Your task to perform on an android device: choose inbox layout in the gmail app Image 0: 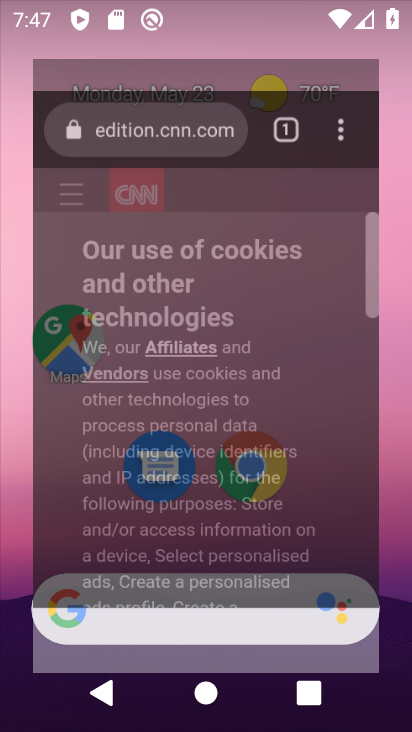
Step 0: drag from (231, 624) to (253, 141)
Your task to perform on an android device: choose inbox layout in the gmail app Image 1: 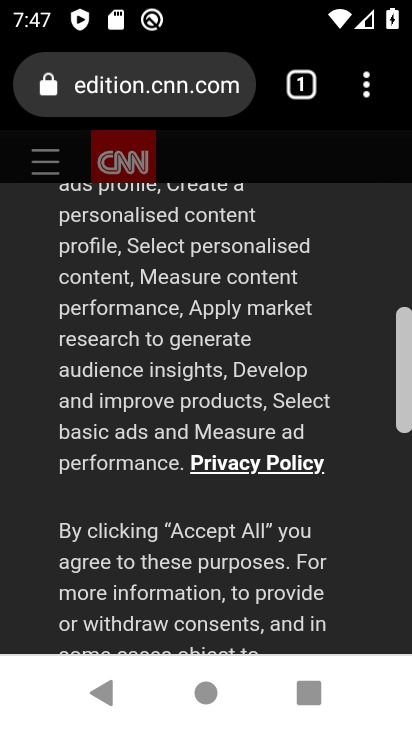
Step 1: press home button
Your task to perform on an android device: choose inbox layout in the gmail app Image 2: 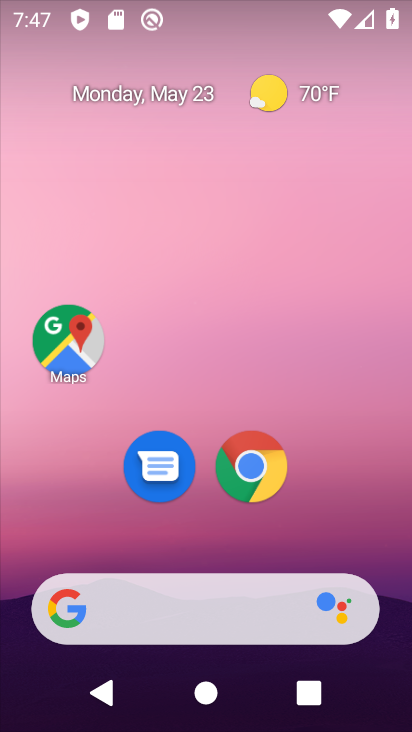
Step 2: drag from (266, 549) to (278, 178)
Your task to perform on an android device: choose inbox layout in the gmail app Image 3: 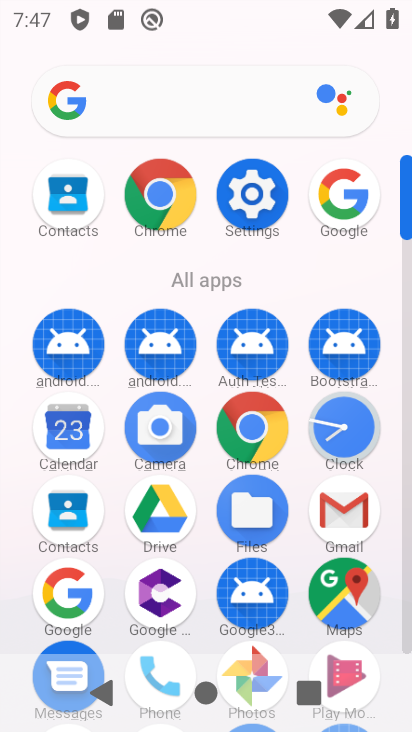
Step 3: click (336, 513)
Your task to perform on an android device: choose inbox layout in the gmail app Image 4: 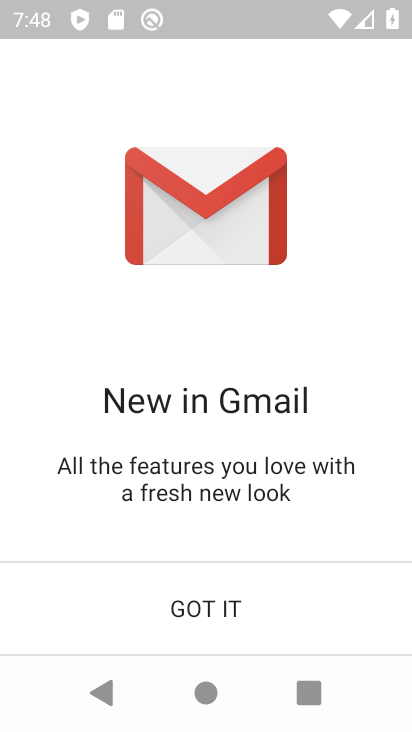
Step 4: click (273, 615)
Your task to perform on an android device: choose inbox layout in the gmail app Image 5: 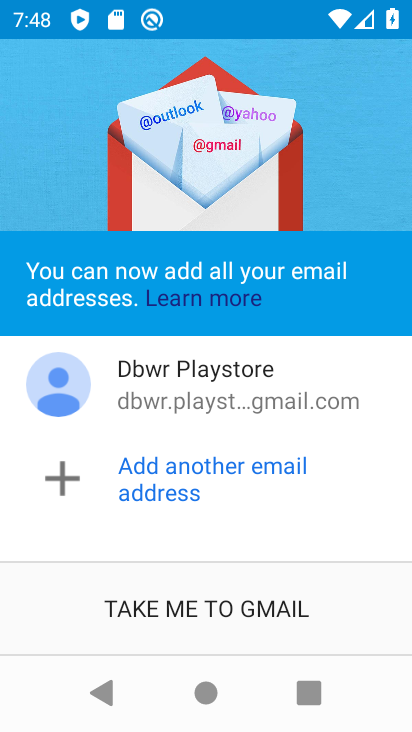
Step 5: click (275, 593)
Your task to perform on an android device: choose inbox layout in the gmail app Image 6: 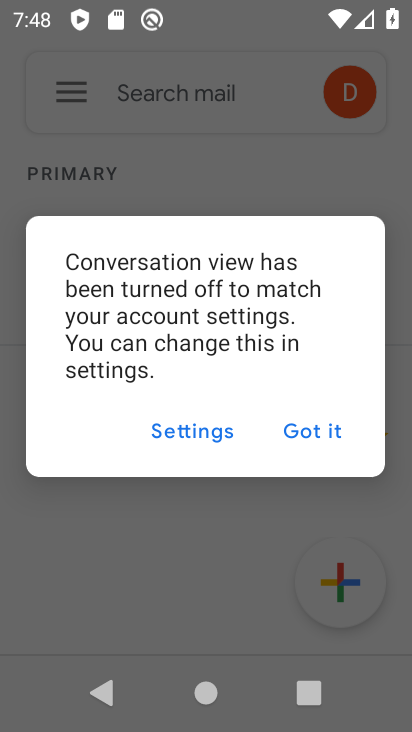
Step 6: click (321, 433)
Your task to perform on an android device: choose inbox layout in the gmail app Image 7: 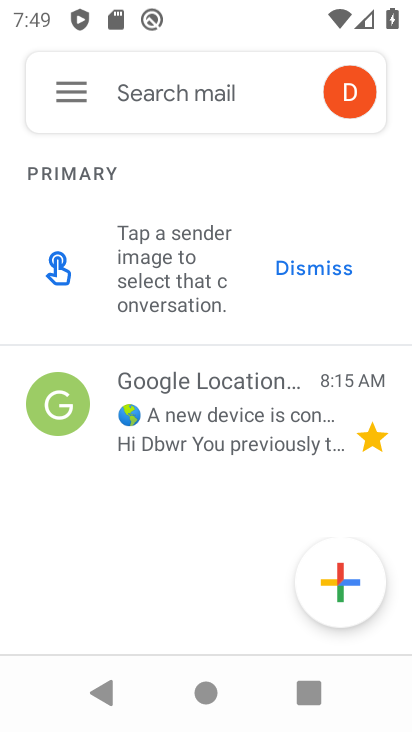
Step 7: task complete